Your task to perform on an android device: Do I have any events today? Image 0: 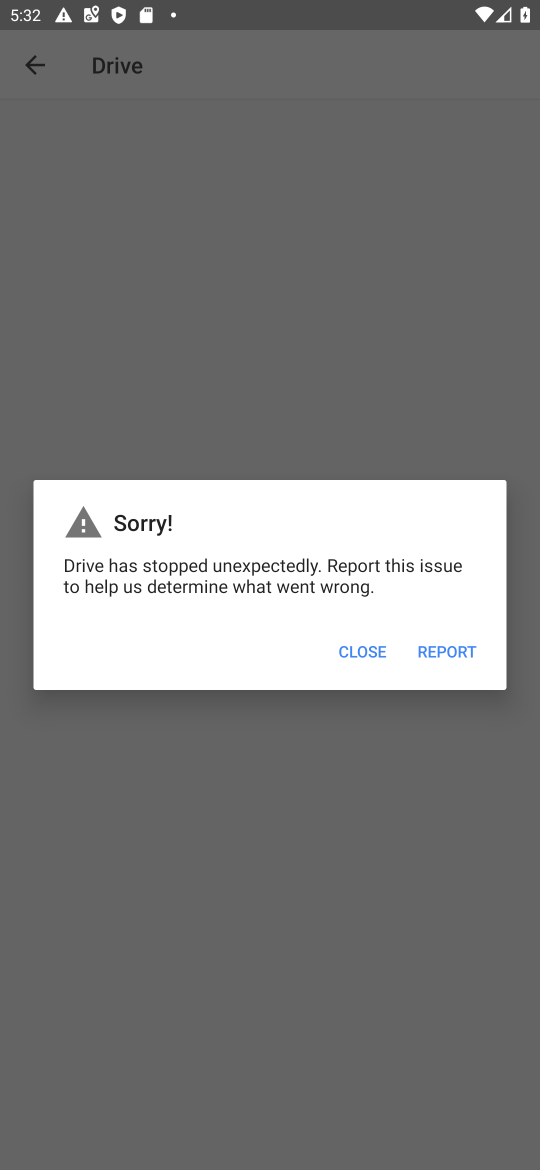
Step 0: press home button
Your task to perform on an android device: Do I have any events today? Image 1: 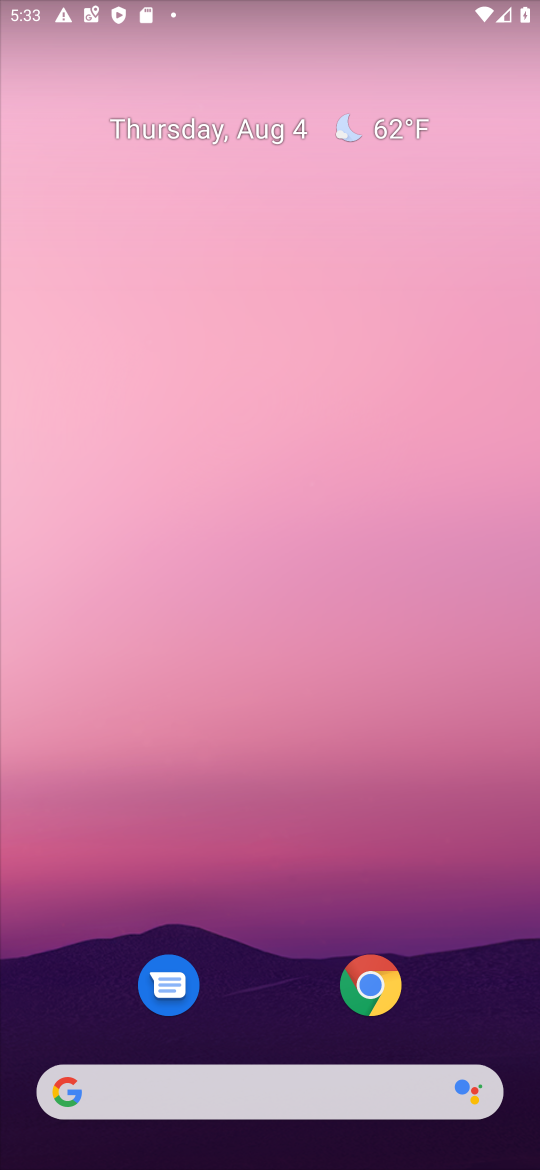
Step 1: drag from (297, 1047) to (321, 146)
Your task to perform on an android device: Do I have any events today? Image 2: 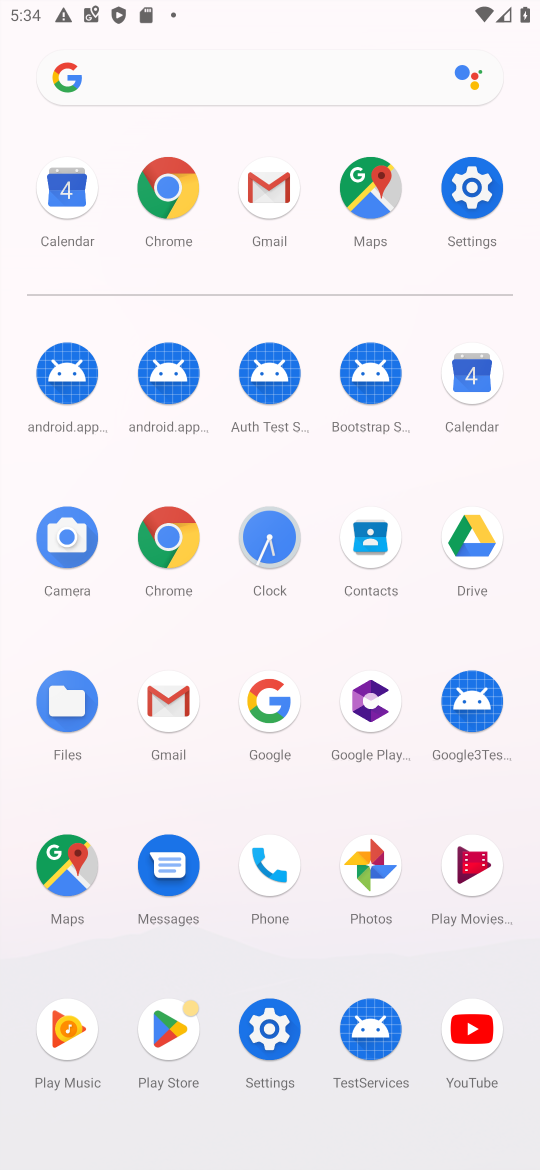
Step 2: click (463, 382)
Your task to perform on an android device: Do I have any events today? Image 3: 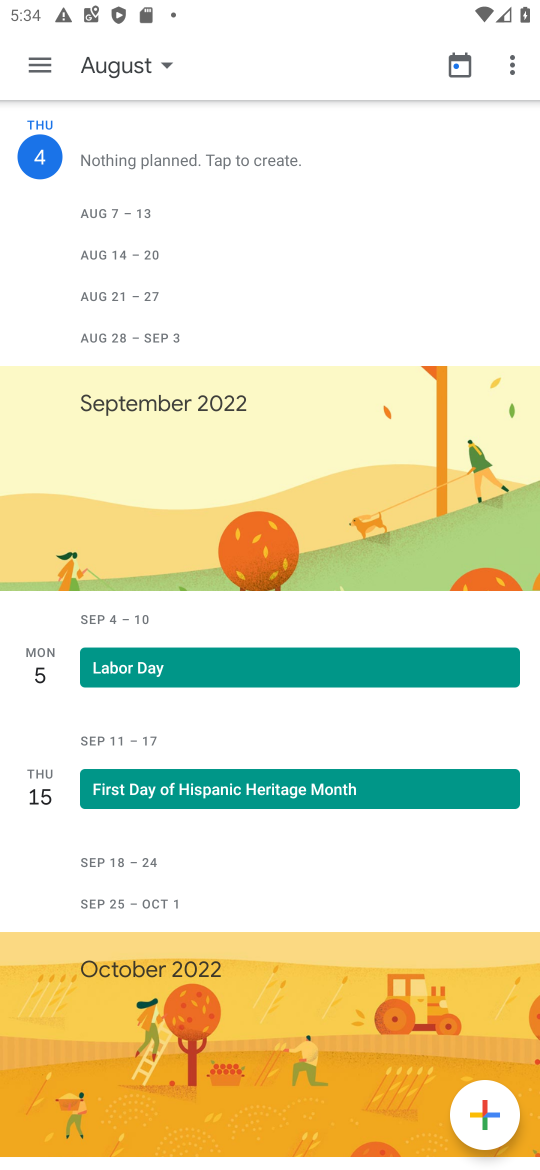
Step 3: task complete